Your task to perform on an android device: open sync settings in chrome Image 0: 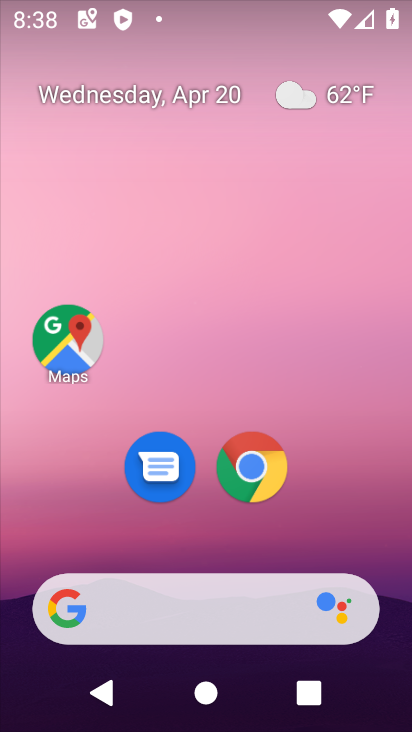
Step 0: drag from (346, 623) to (203, 164)
Your task to perform on an android device: open sync settings in chrome Image 1: 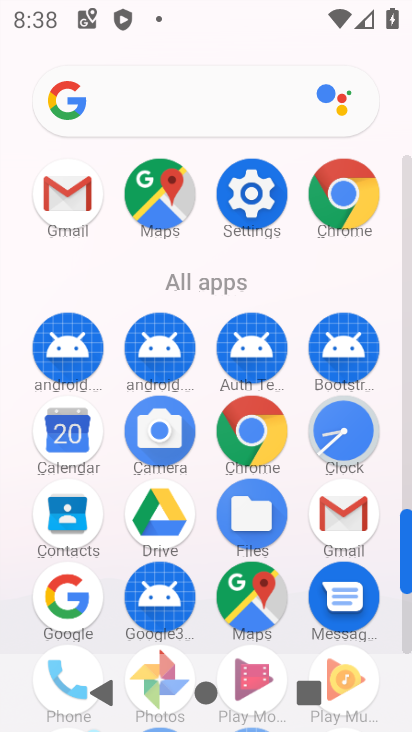
Step 1: click (335, 198)
Your task to perform on an android device: open sync settings in chrome Image 2: 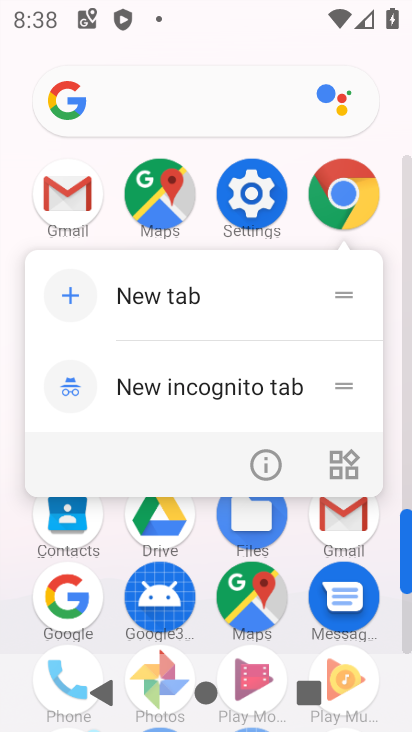
Step 2: click (175, 294)
Your task to perform on an android device: open sync settings in chrome Image 3: 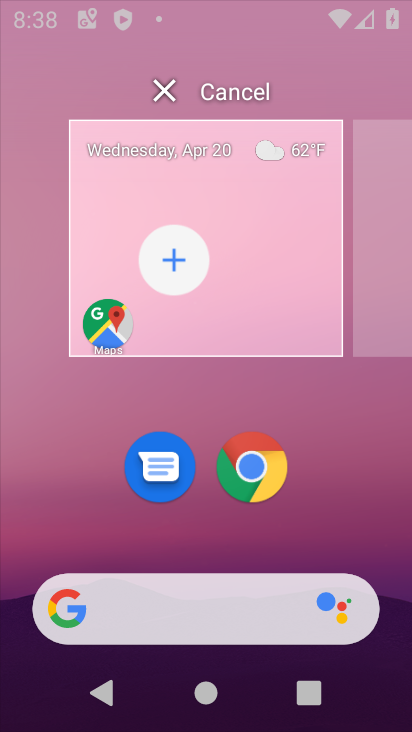
Step 3: click (177, 296)
Your task to perform on an android device: open sync settings in chrome Image 4: 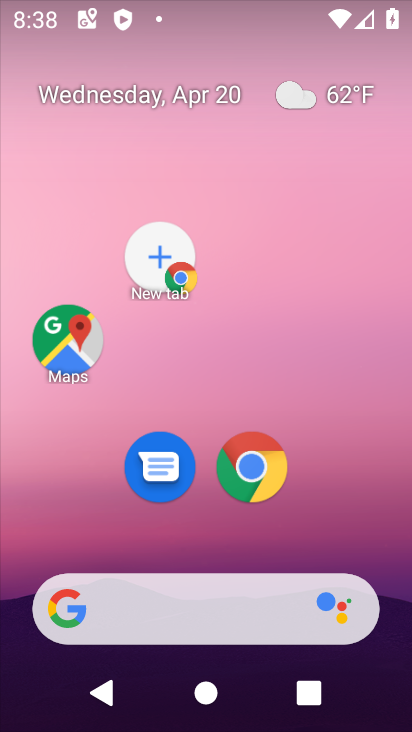
Step 4: click (247, 469)
Your task to perform on an android device: open sync settings in chrome Image 5: 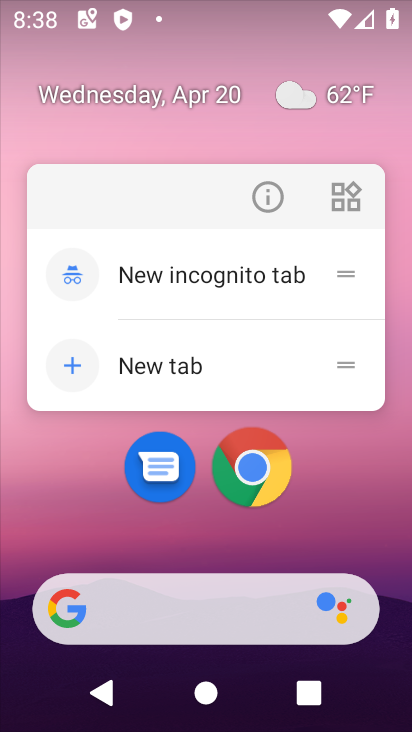
Step 5: click (253, 453)
Your task to perform on an android device: open sync settings in chrome Image 6: 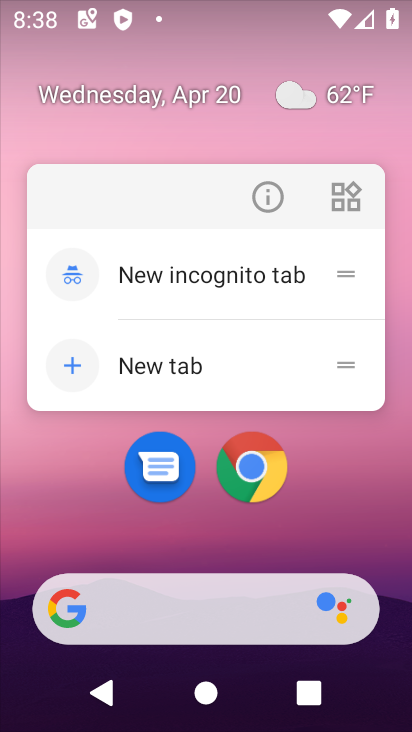
Step 6: click (154, 361)
Your task to perform on an android device: open sync settings in chrome Image 7: 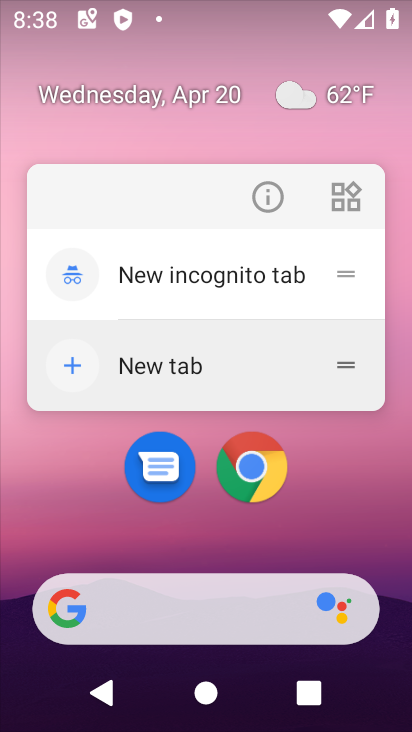
Step 7: click (152, 360)
Your task to perform on an android device: open sync settings in chrome Image 8: 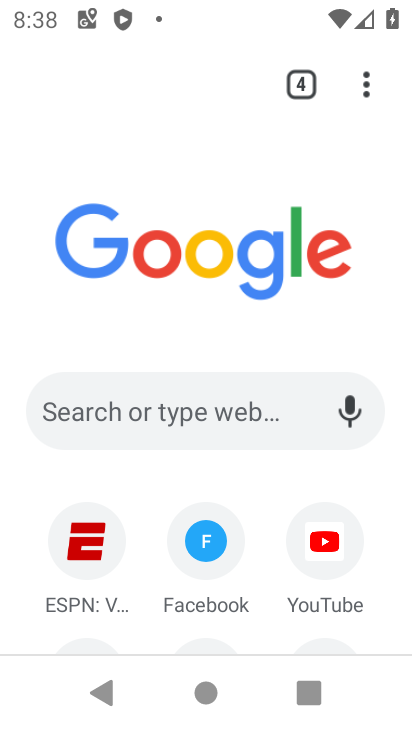
Step 8: drag from (366, 76) to (80, 507)
Your task to perform on an android device: open sync settings in chrome Image 9: 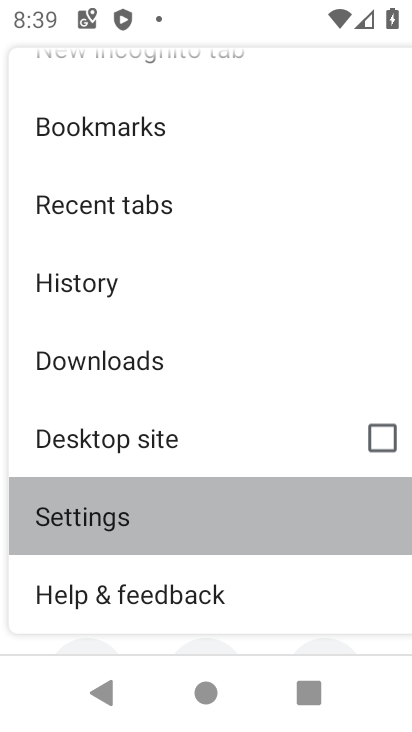
Step 9: click (88, 513)
Your task to perform on an android device: open sync settings in chrome Image 10: 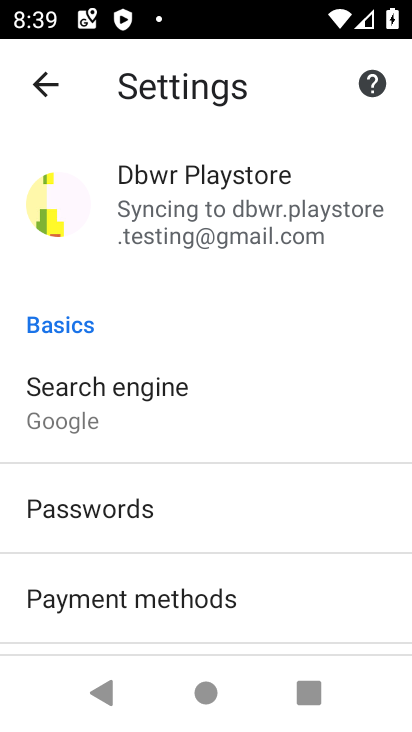
Step 10: drag from (229, 524) to (153, 173)
Your task to perform on an android device: open sync settings in chrome Image 11: 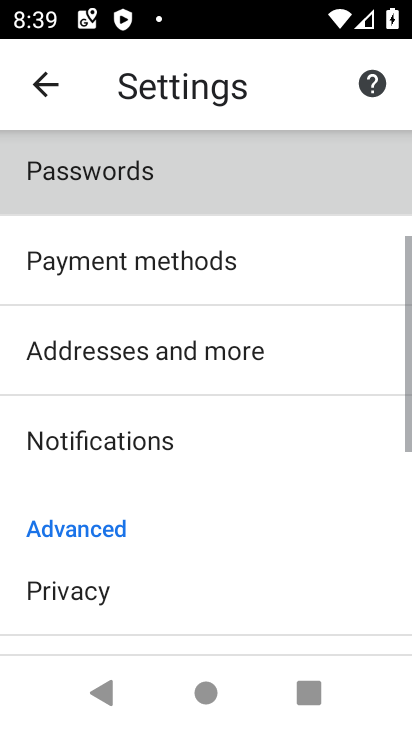
Step 11: drag from (269, 504) to (250, 176)
Your task to perform on an android device: open sync settings in chrome Image 12: 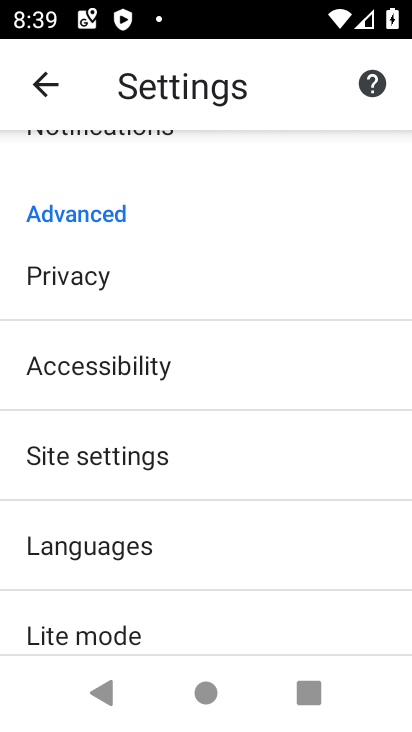
Step 12: click (74, 450)
Your task to perform on an android device: open sync settings in chrome Image 13: 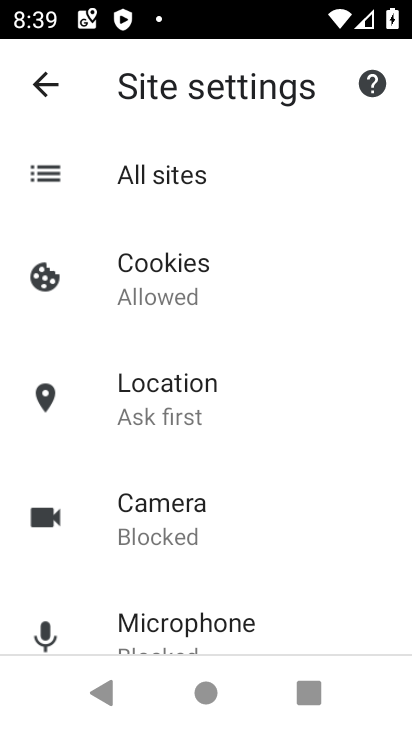
Step 13: drag from (300, 583) to (278, 272)
Your task to perform on an android device: open sync settings in chrome Image 14: 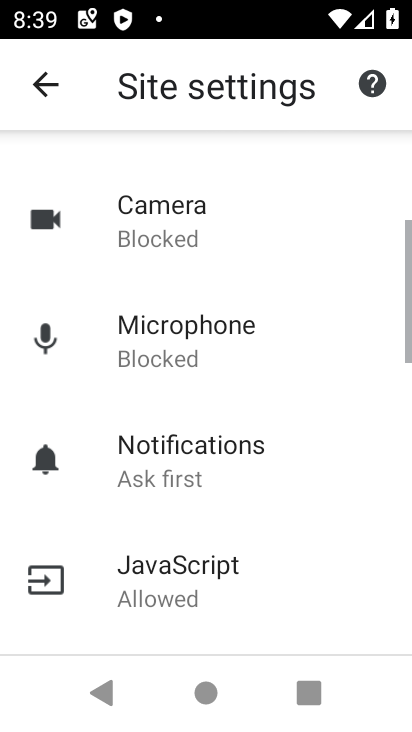
Step 14: drag from (232, 509) to (219, 218)
Your task to perform on an android device: open sync settings in chrome Image 15: 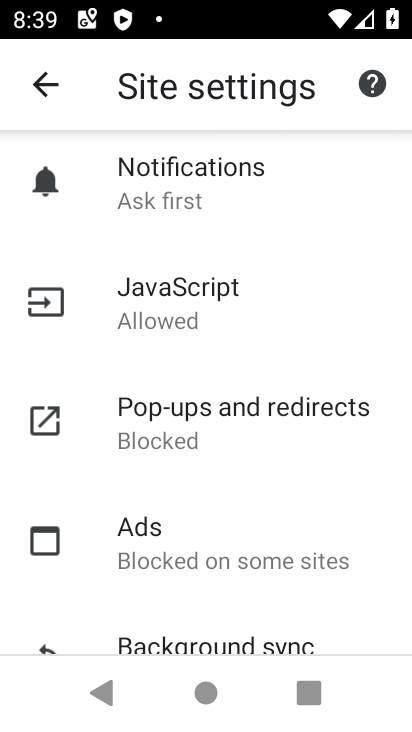
Step 15: drag from (229, 485) to (245, 158)
Your task to perform on an android device: open sync settings in chrome Image 16: 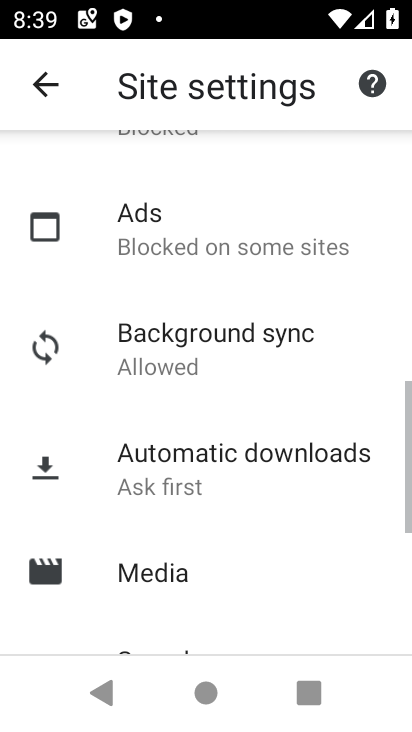
Step 16: click (176, 349)
Your task to perform on an android device: open sync settings in chrome Image 17: 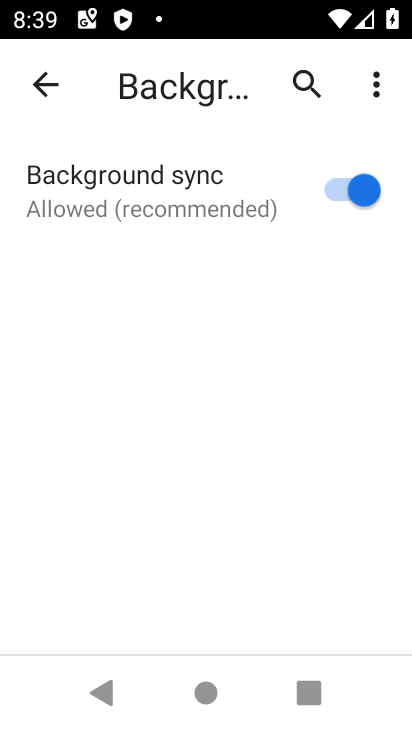
Step 17: task complete